Your task to perform on an android device: Show me popular videos on Youtube Image 0: 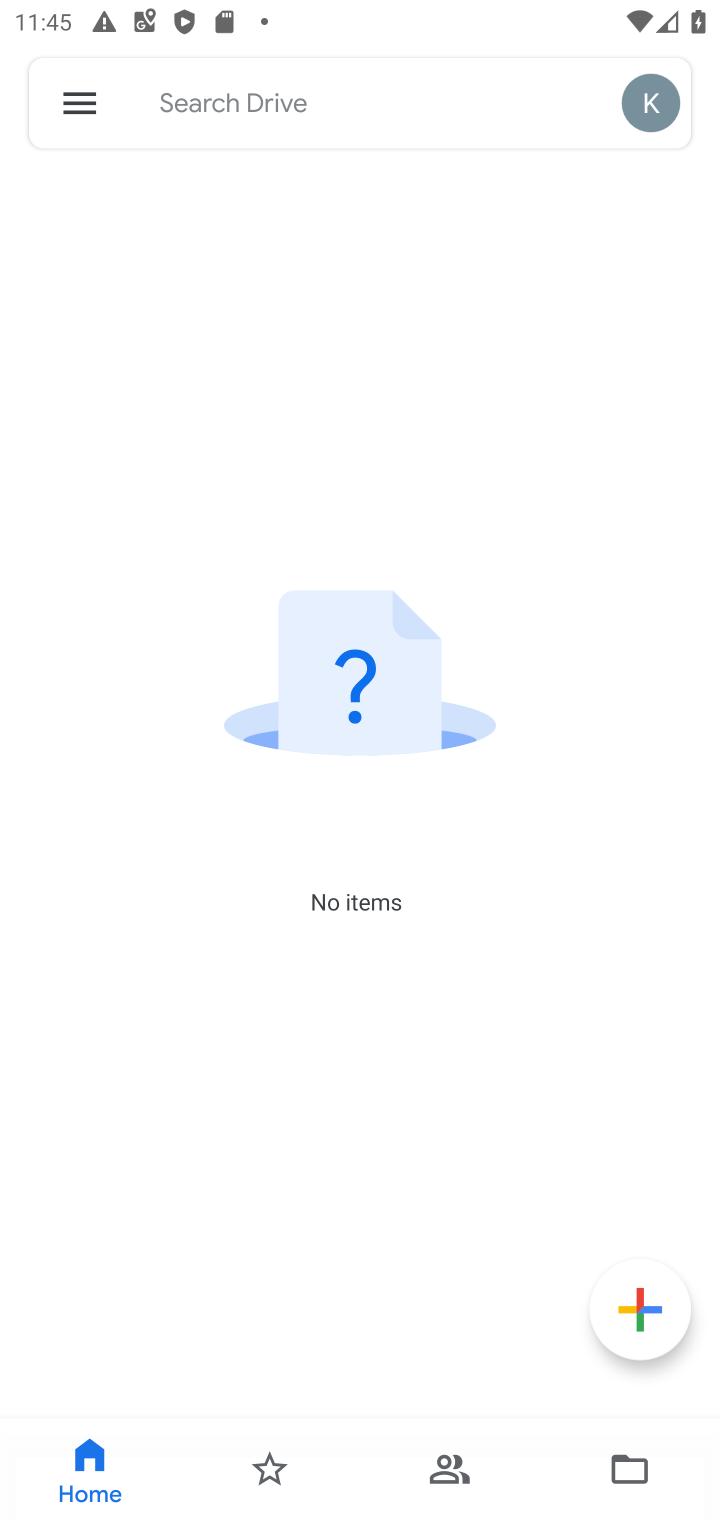
Step 0: press home button
Your task to perform on an android device: Show me popular videos on Youtube Image 1: 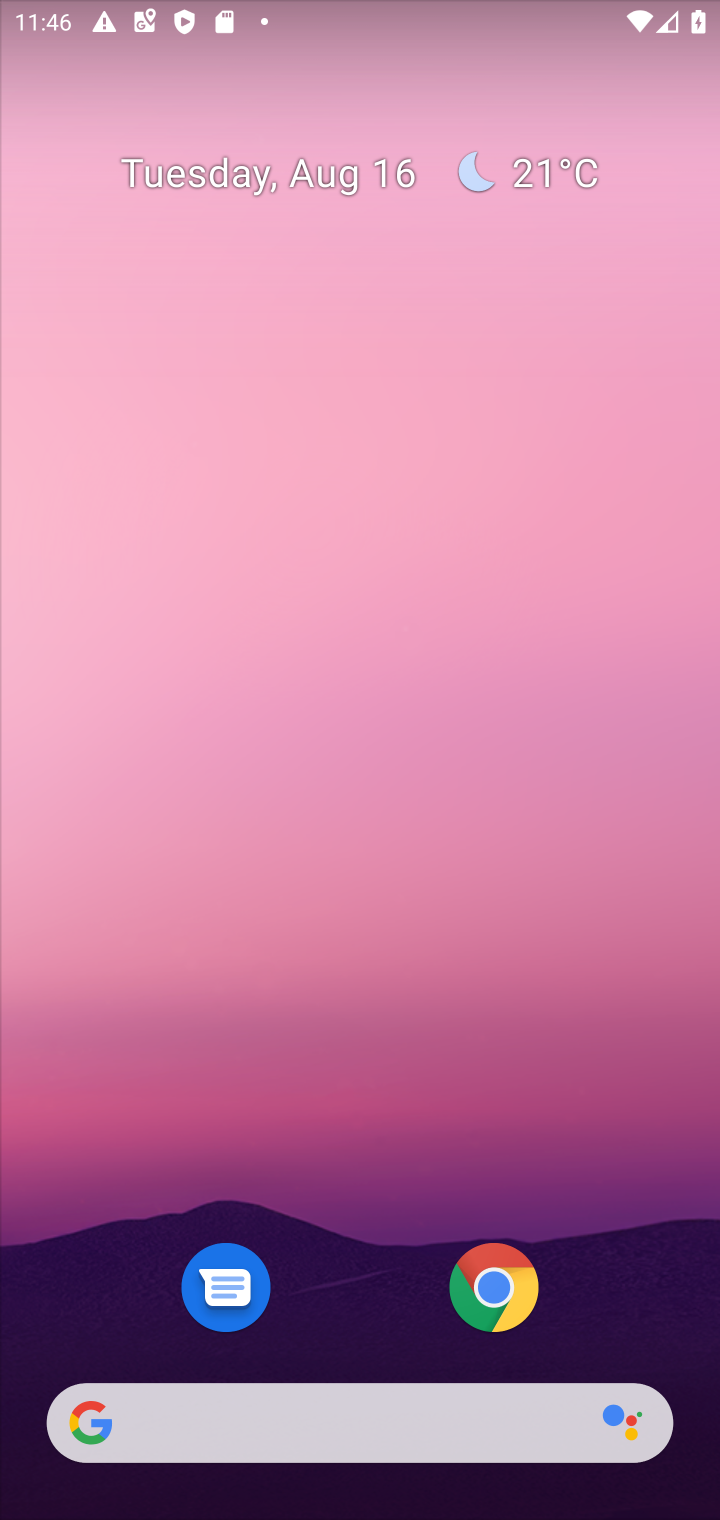
Step 1: drag from (642, 1311) to (551, 439)
Your task to perform on an android device: Show me popular videos on Youtube Image 2: 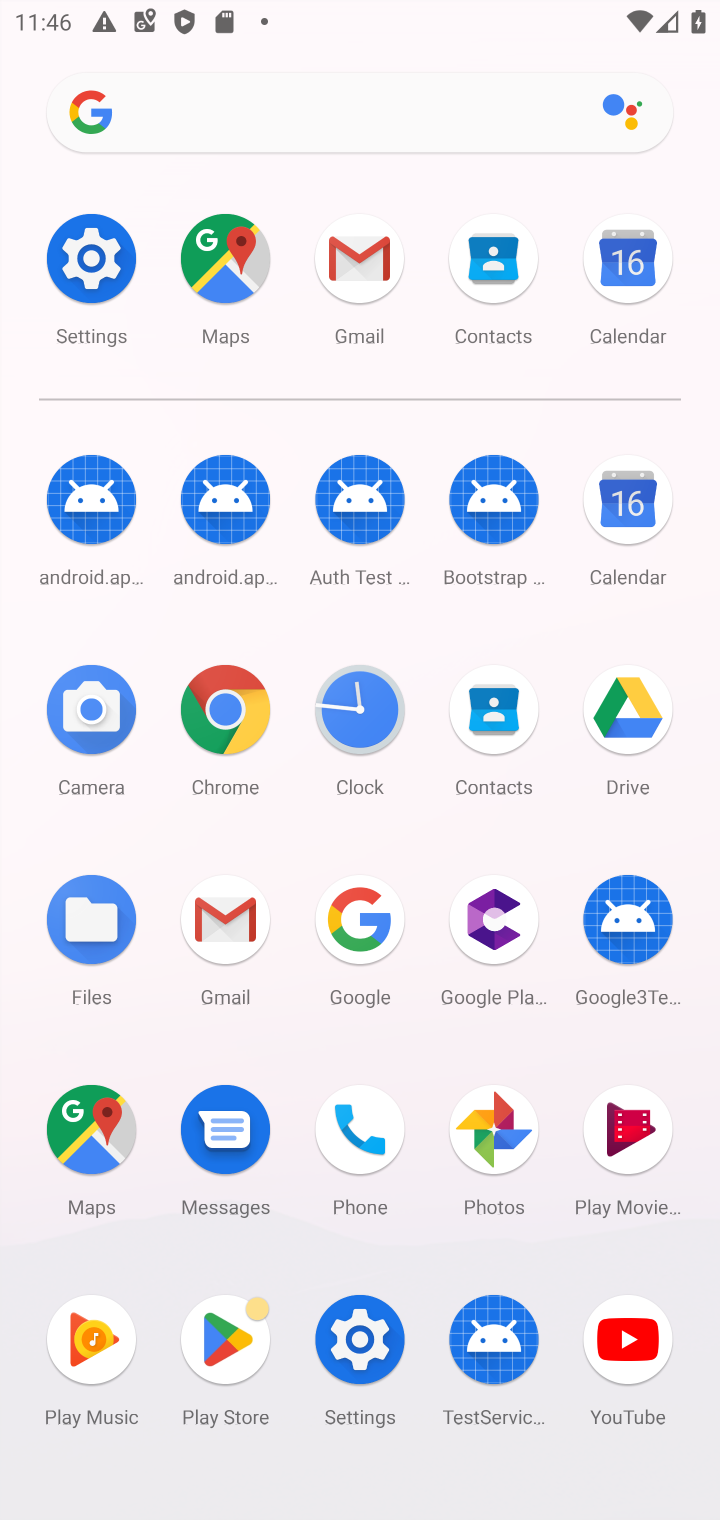
Step 2: click (630, 1336)
Your task to perform on an android device: Show me popular videos on Youtube Image 3: 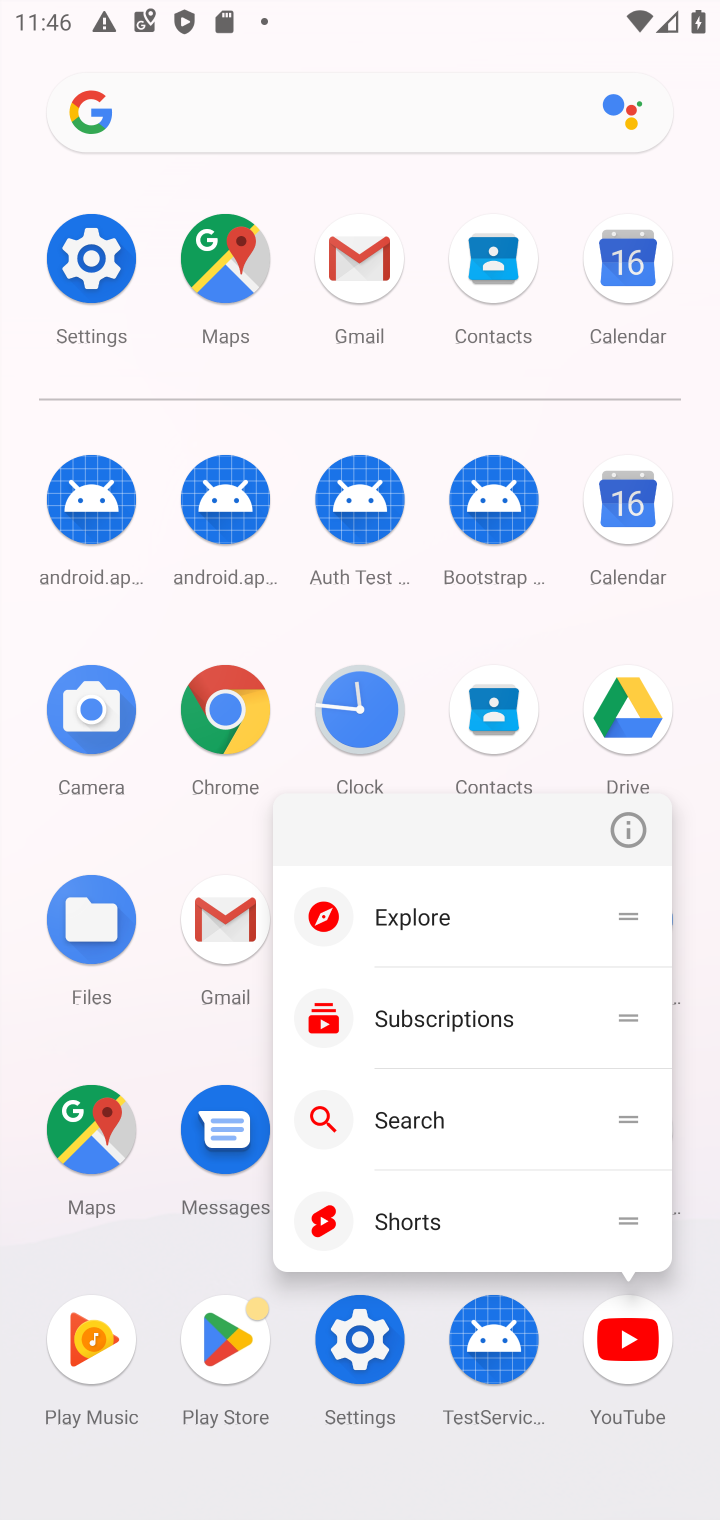
Step 3: click (623, 1337)
Your task to perform on an android device: Show me popular videos on Youtube Image 4: 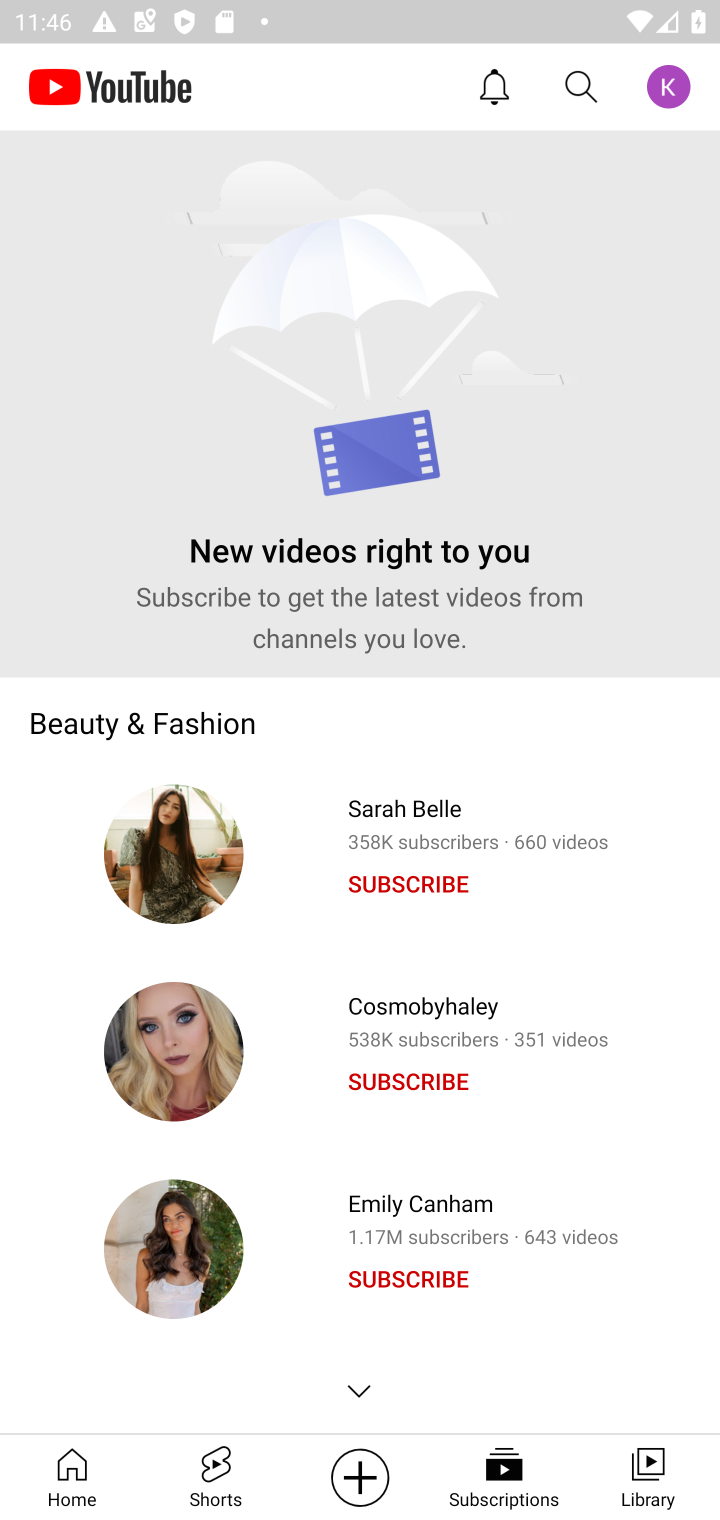
Step 4: click (69, 1487)
Your task to perform on an android device: Show me popular videos on Youtube Image 5: 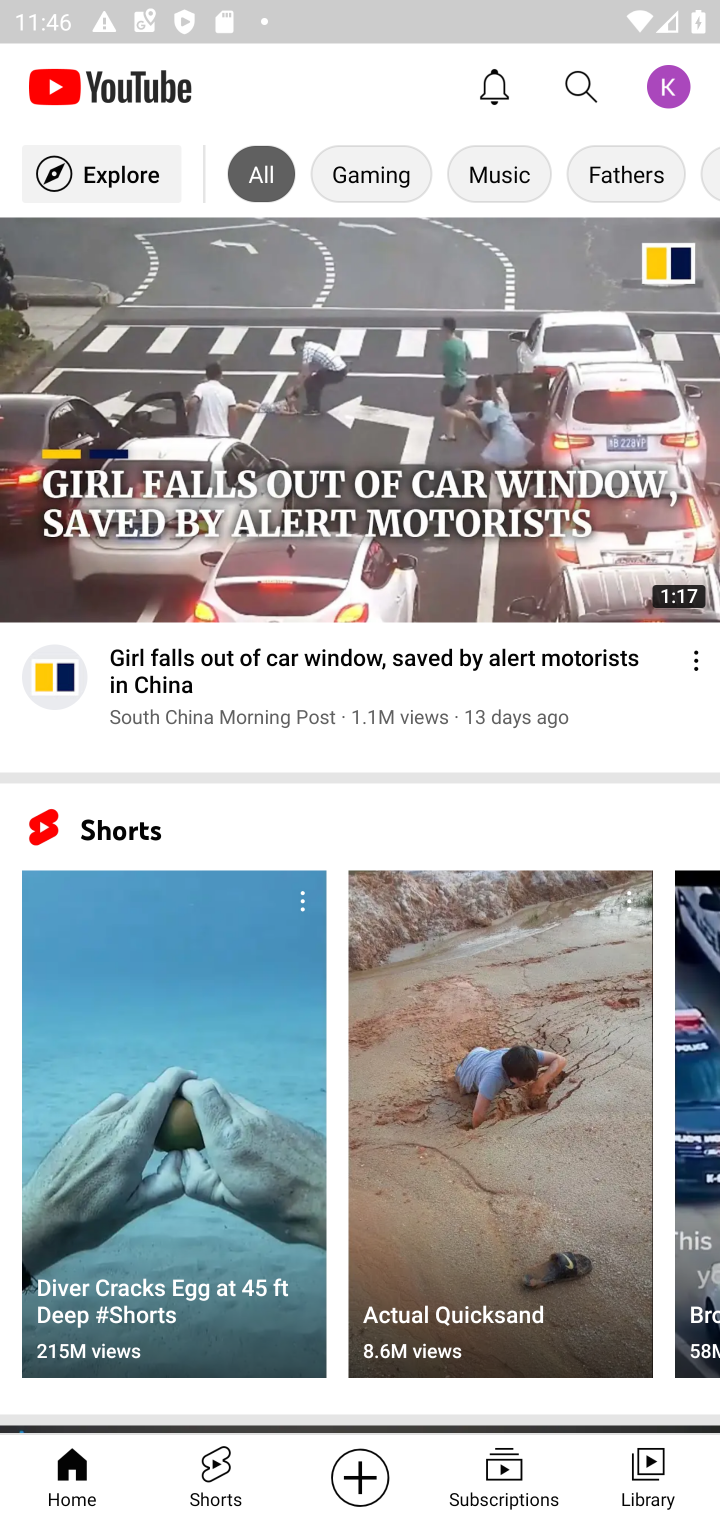
Step 5: click (101, 171)
Your task to perform on an android device: Show me popular videos on Youtube Image 6: 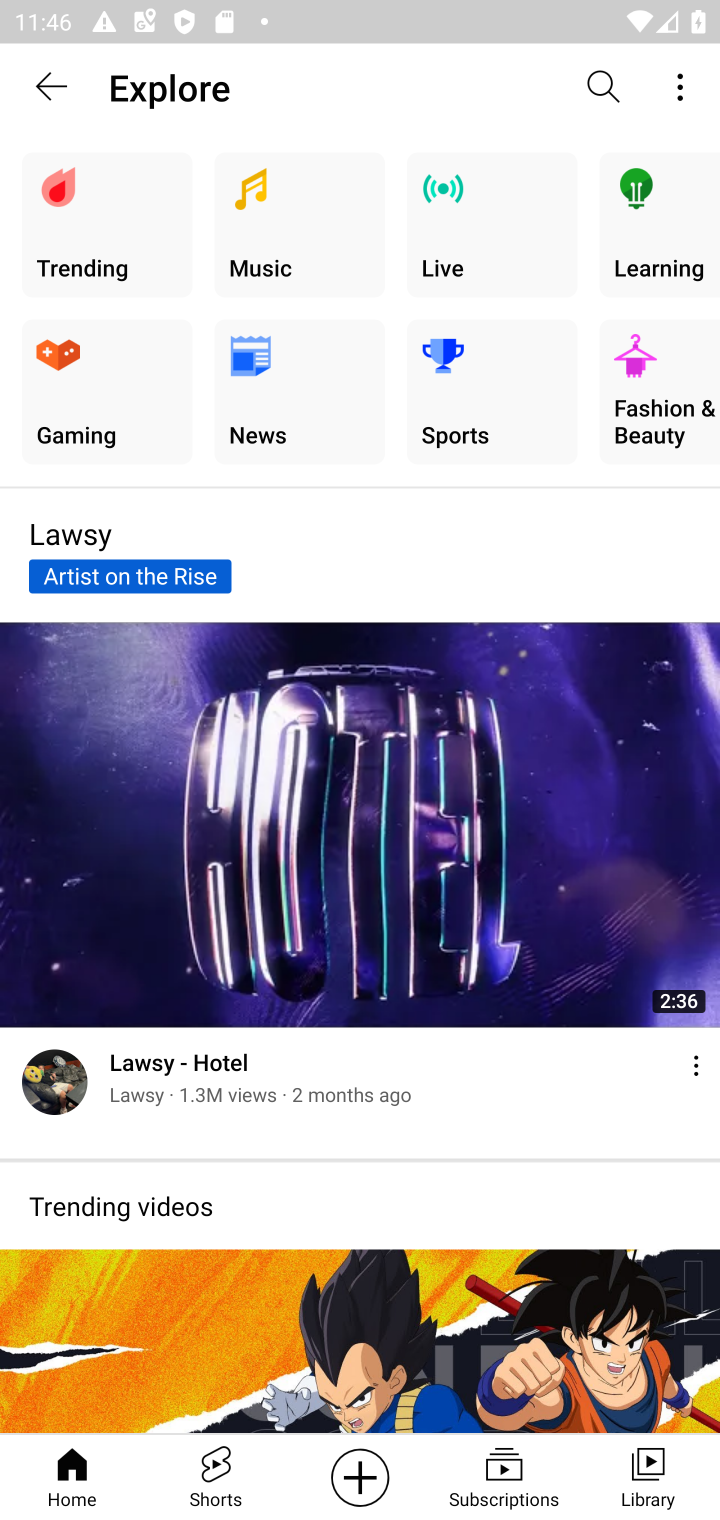
Step 6: click (65, 210)
Your task to perform on an android device: Show me popular videos on Youtube Image 7: 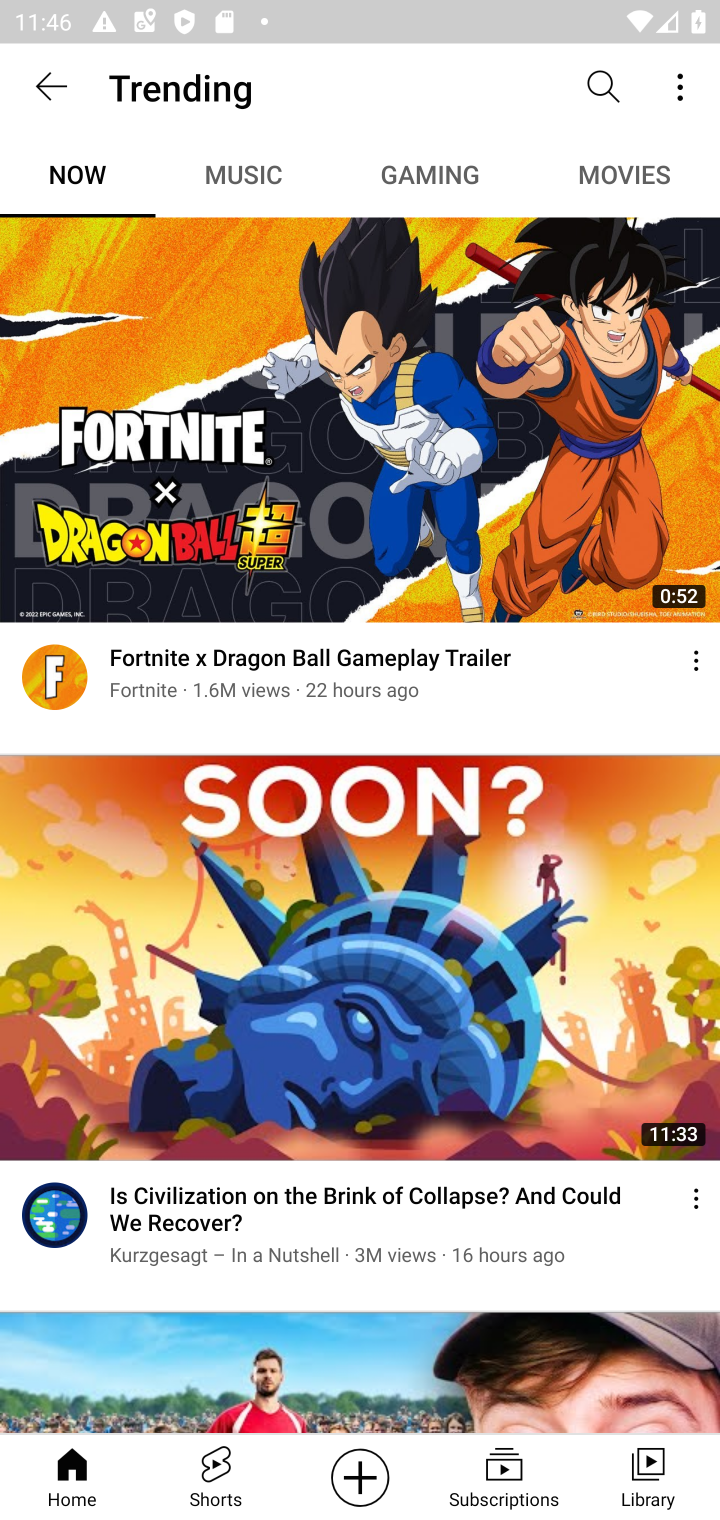
Step 7: task complete